Your task to perform on an android device: add a contact Image 0: 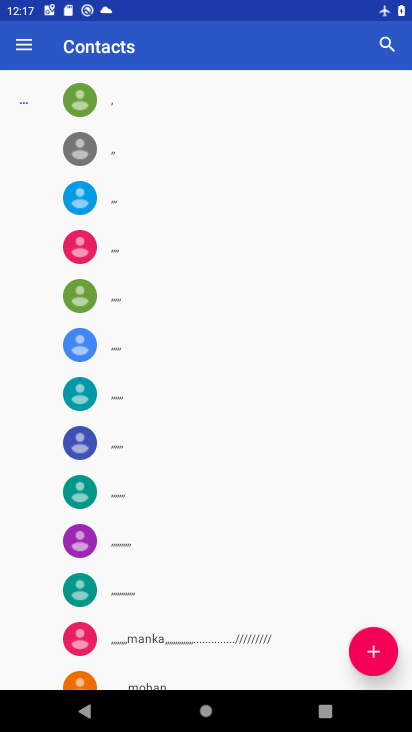
Step 0: click (381, 653)
Your task to perform on an android device: add a contact Image 1: 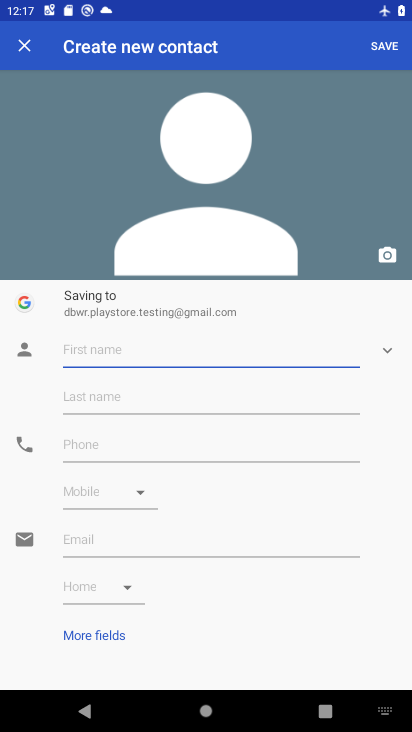
Step 1: type ""
Your task to perform on an android device: add a contact Image 2: 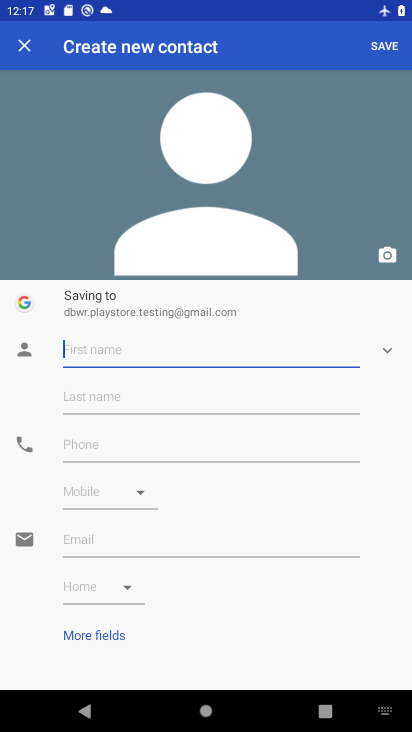
Step 2: type "jjhkk"
Your task to perform on an android device: add a contact Image 3: 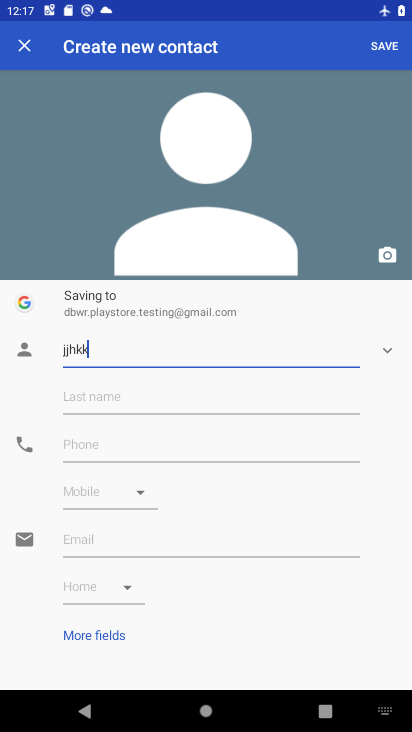
Step 3: click (127, 453)
Your task to perform on an android device: add a contact Image 4: 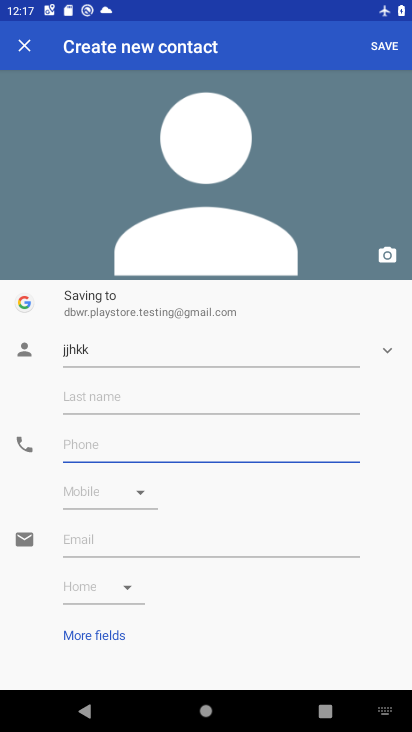
Step 4: type "989777898778"
Your task to perform on an android device: add a contact Image 5: 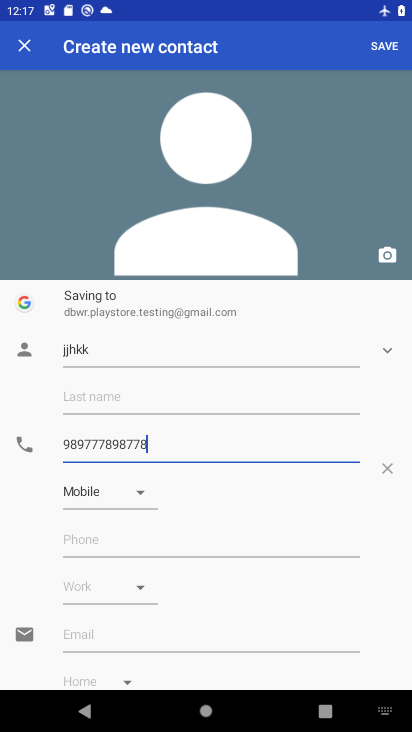
Step 5: click (381, 53)
Your task to perform on an android device: add a contact Image 6: 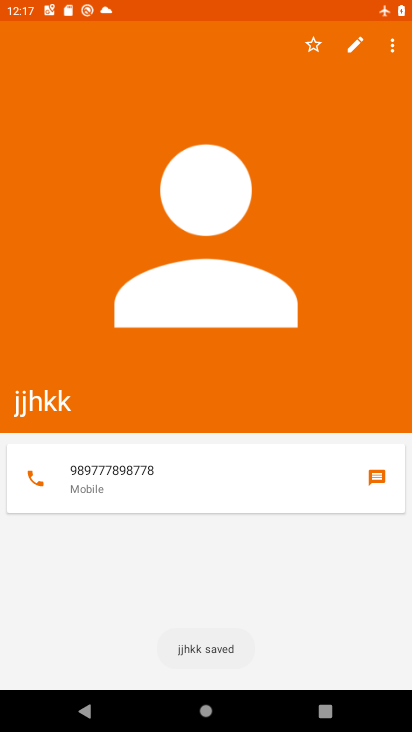
Step 6: task complete